Your task to perform on an android device: change the upload size in google photos Image 0: 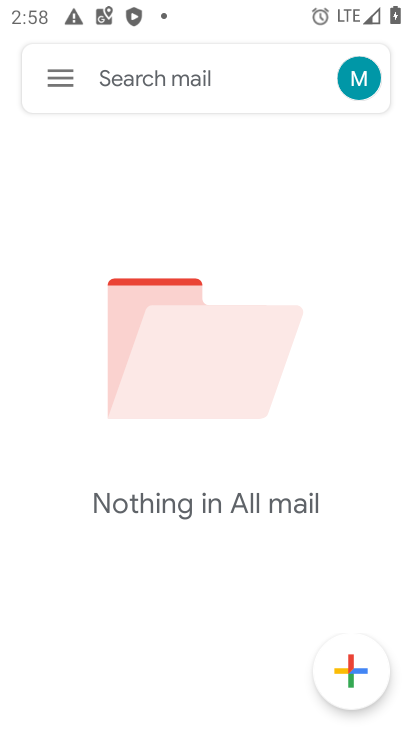
Step 0: press home button
Your task to perform on an android device: change the upload size in google photos Image 1: 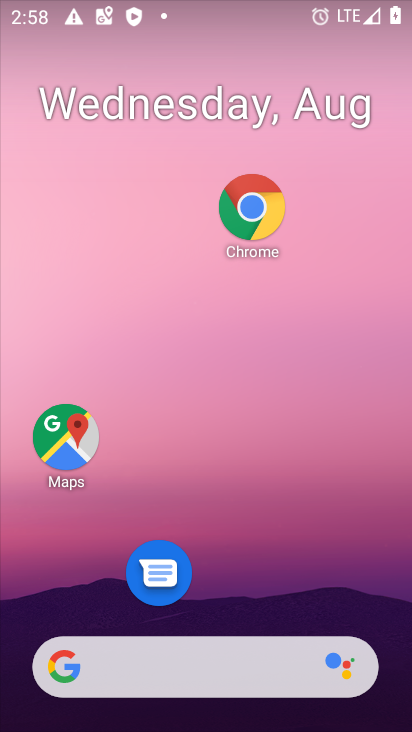
Step 1: drag from (210, 525) to (204, 171)
Your task to perform on an android device: change the upload size in google photos Image 2: 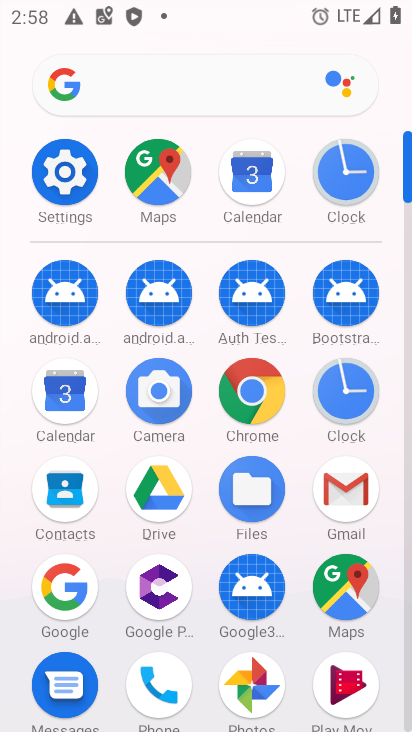
Step 2: click (245, 697)
Your task to perform on an android device: change the upload size in google photos Image 3: 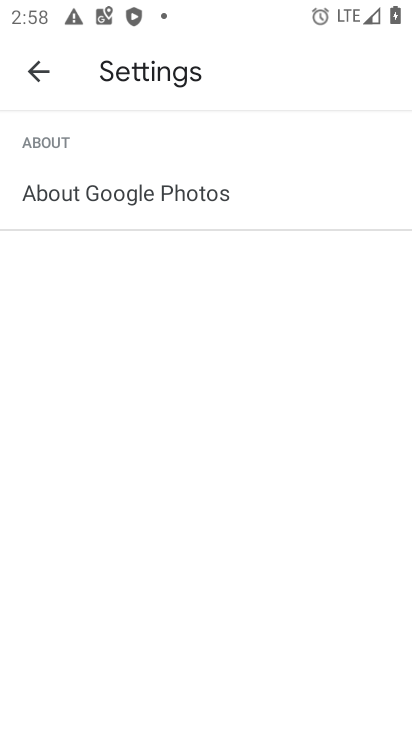
Step 3: click (53, 83)
Your task to perform on an android device: change the upload size in google photos Image 4: 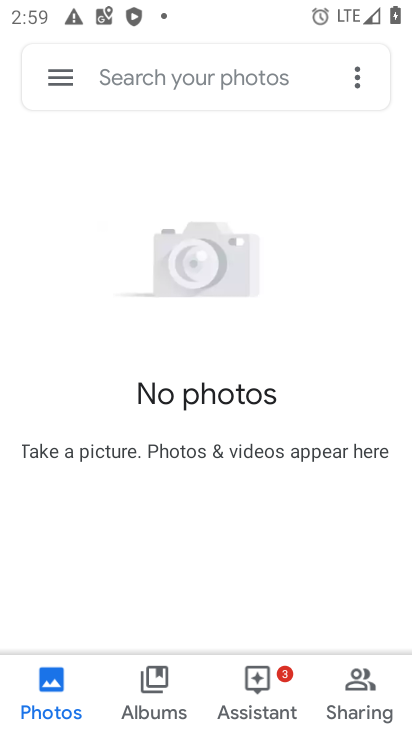
Step 4: click (64, 91)
Your task to perform on an android device: change the upload size in google photos Image 5: 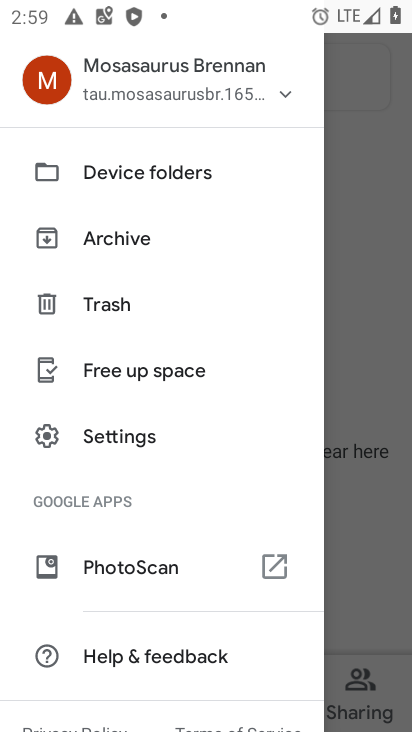
Step 5: click (79, 439)
Your task to perform on an android device: change the upload size in google photos Image 6: 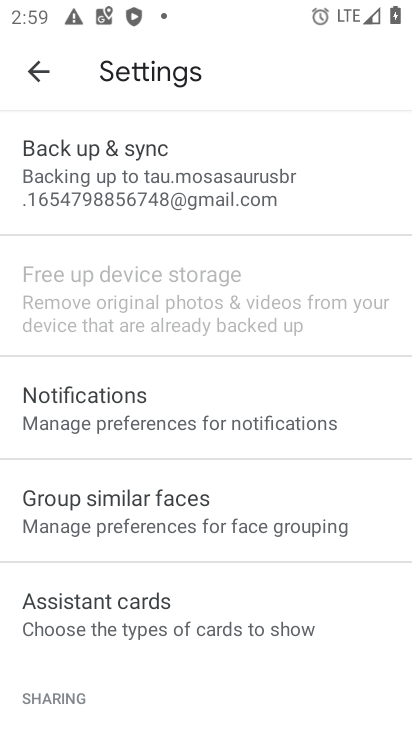
Step 6: drag from (130, 532) to (165, 76)
Your task to perform on an android device: change the upload size in google photos Image 7: 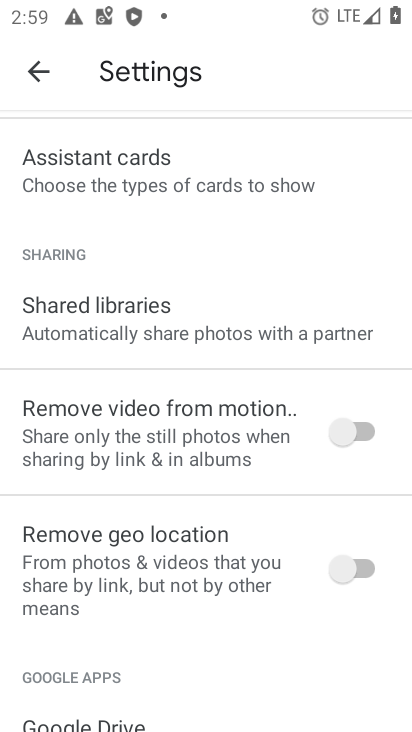
Step 7: drag from (137, 525) to (157, 112)
Your task to perform on an android device: change the upload size in google photos Image 8: 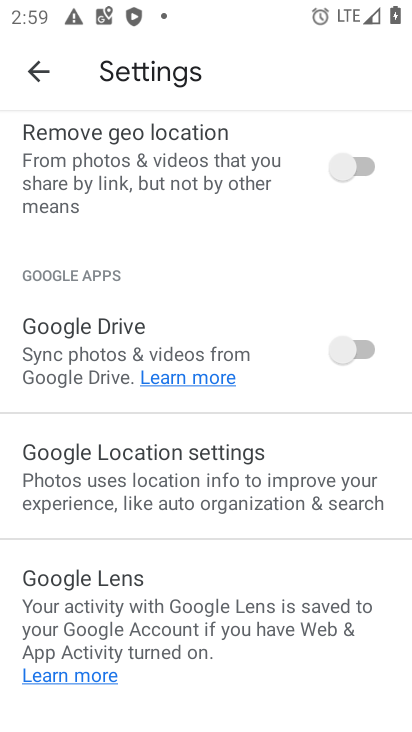
Step 8: drag from (114, 218) to (64, 721)
Your task to perform on an android device: change the upload size in google photos Image 9: 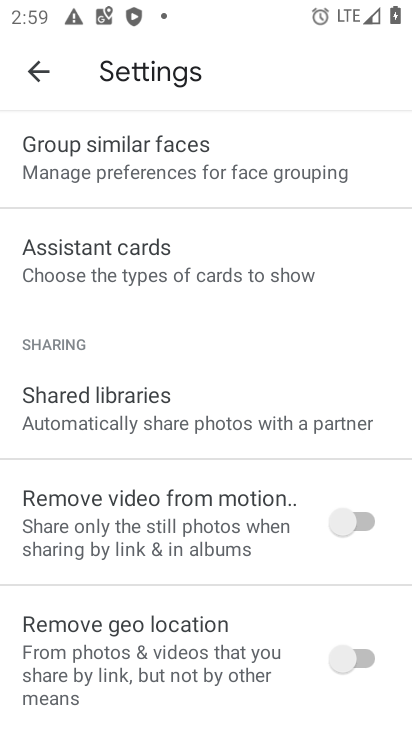
Step 9: drag from (162, 211) to (137, 631)
Your task to perform on an android device: change the upload size in google photos Image 10: 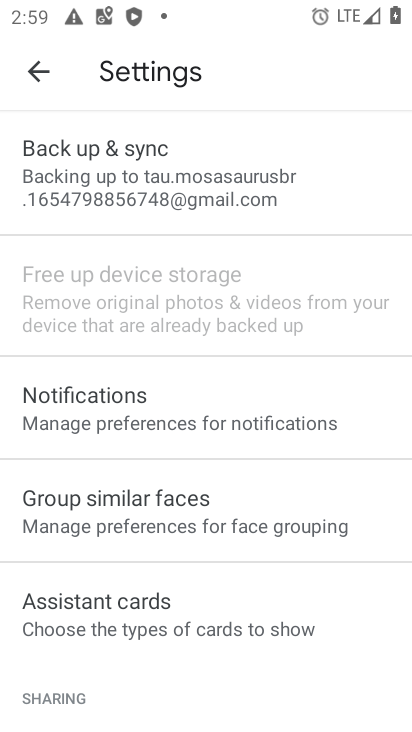
Step 10: drag from (178, 222) to (120, 586)
Your task to perform on an android device: change the upload size in google photos Image 11: 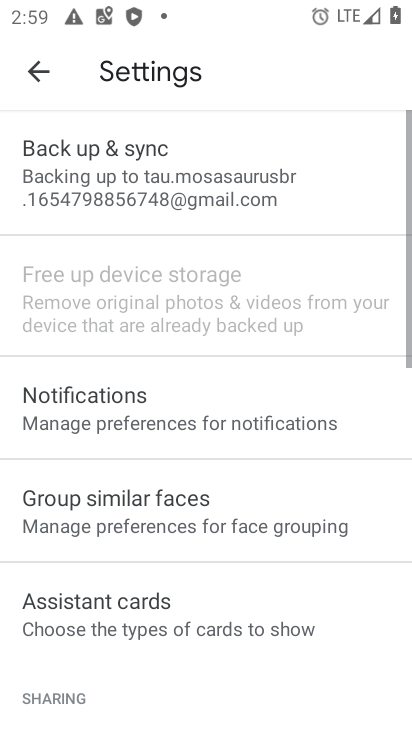
Step 11: click (151, 189)
Your task to perform on an android device: change the upload size in google photos Image 12: 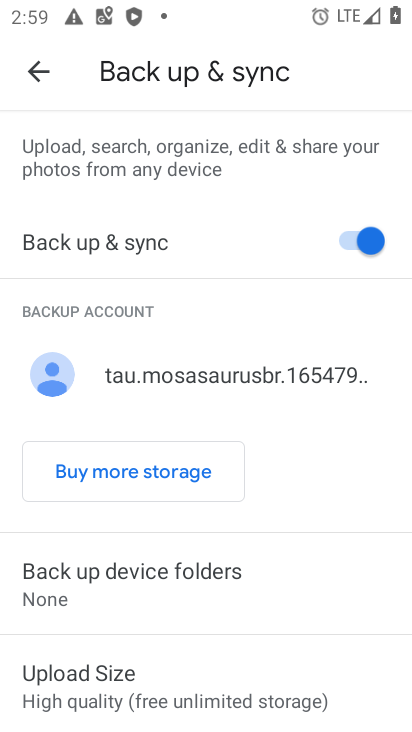
Step 12: click (164, 677)
Your task to perform on an android device: change the upload size in google photos Image 13: 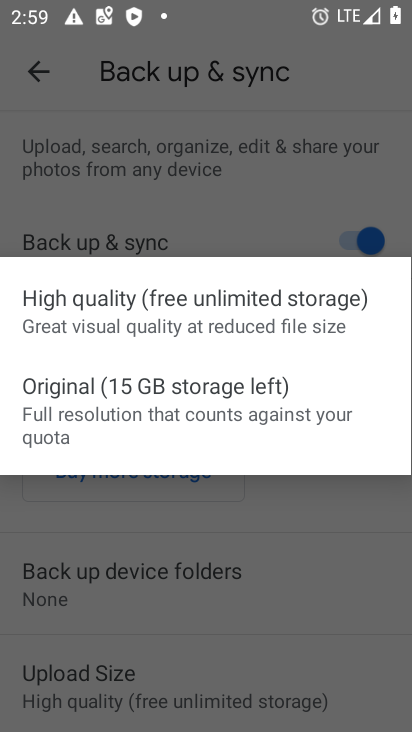
Step 13: click (112, 415)
Your task to perform on an android device: change the upload size in google photos Image 14: 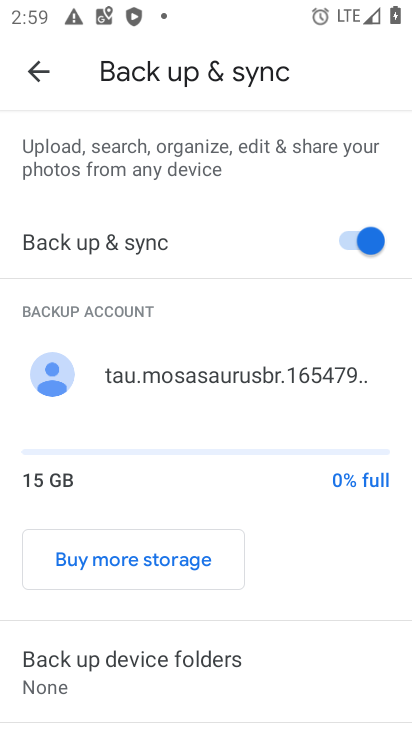
Step 14: task complete